Your task to perform on an android device: Do I have any events this weekend? Image 0: 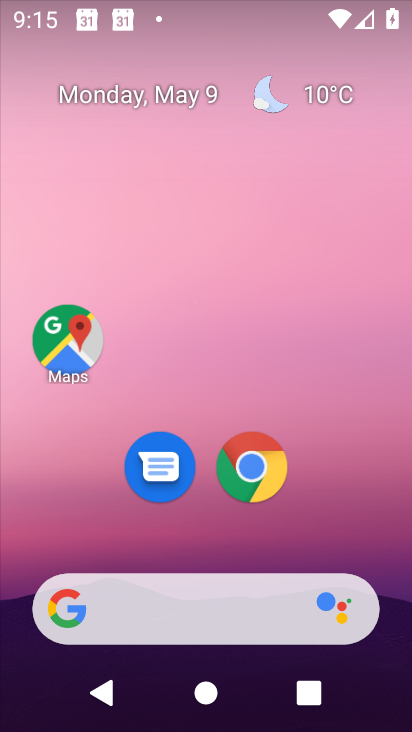
Step 0: press home button
Your task to perform on an android device: Do I have any events this weekend? Image 1: 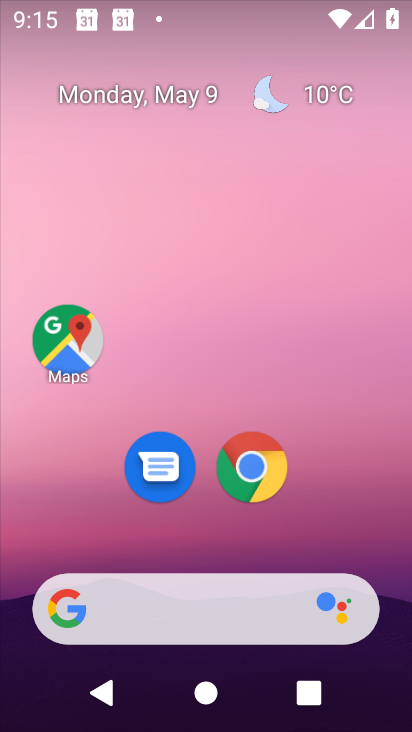
Step 1: drag from (385, 499) to (371, 13)
Your task to perform on an android device: Do I have any events this weekend? Image 2: 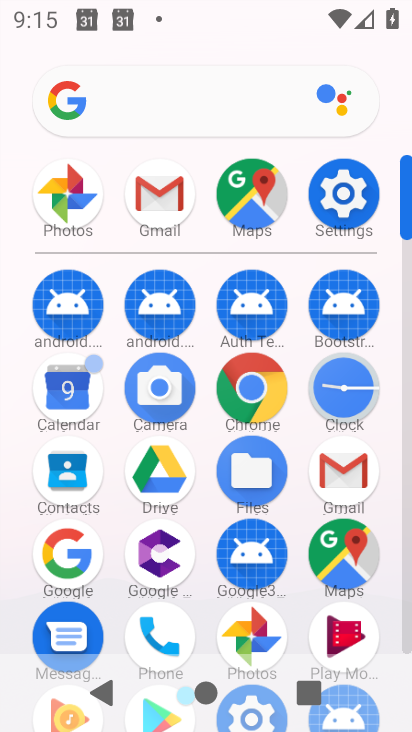
Step 2: click (69, 381)
Your task to perform on an android device: Do I have any events this weekend? Image 3: 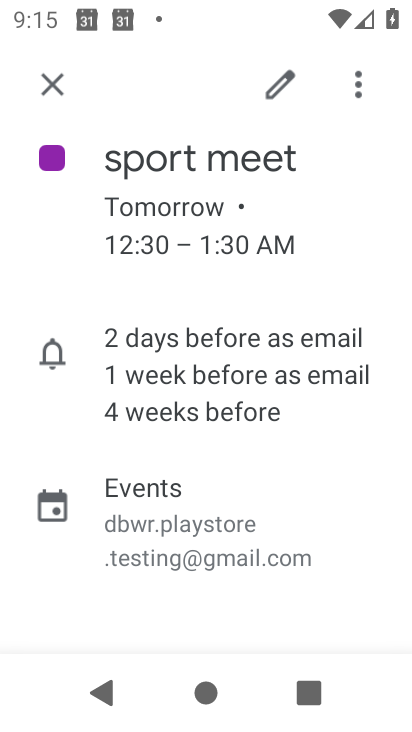
Step 3: click (49, 90)
Your task to perform on an android device: Do I have any events this weekend? Image 4: 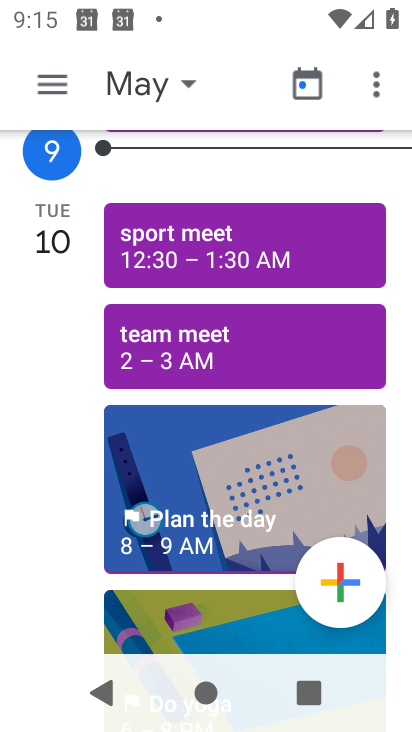
Step 4: drag from (144, 496) to (122, 62)
Your task to perform on an android device: Do I have any events this weekend? Image 5: 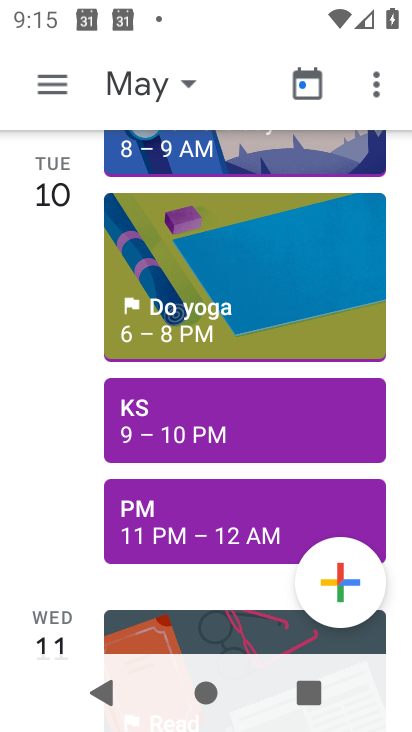
Step 5: drag from (152, 528) to (158, 41)
Your task to perform on an android device: Do I have any events this weekend? Image 6: 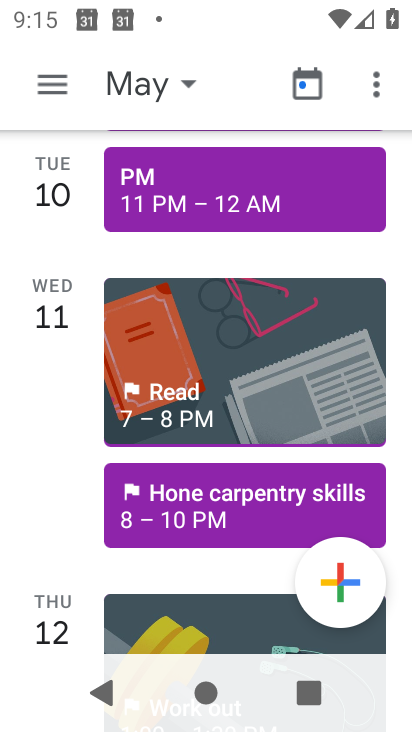
Step 6: drag from (183, 355) to (169, 9)
Your task to perform on an android device: Do I have any events this weekend? Image 7: 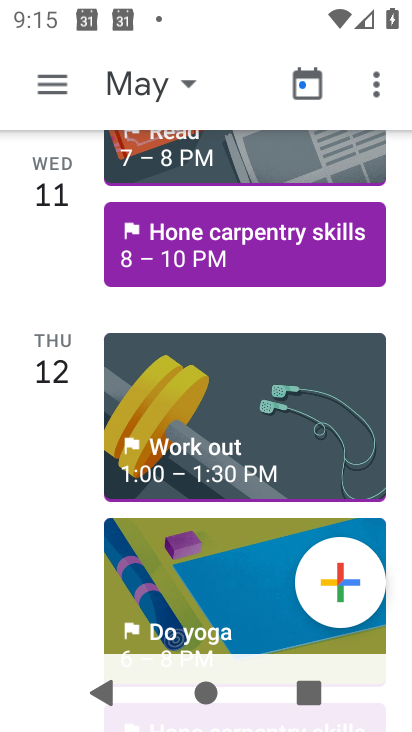
Step 7: drag from (135, 431) to (111, 12)
Your task to perform on an android device: Do I have any events this weekend? Image 8: 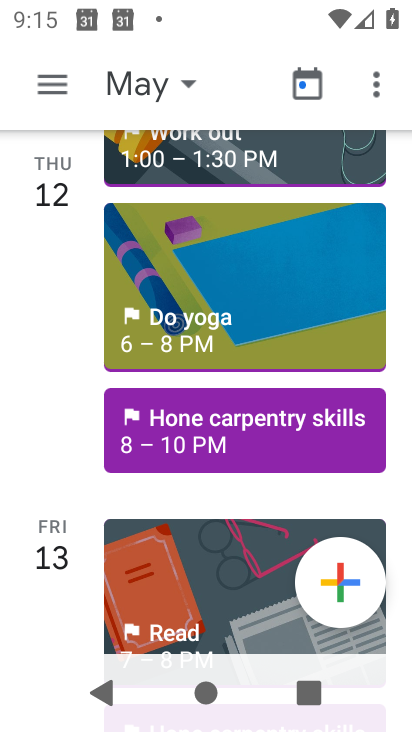
Step 8: drag from (138, 502) to (136, 58)
Your task to perform on an android device: Do I have any events this weekend? Image 9: 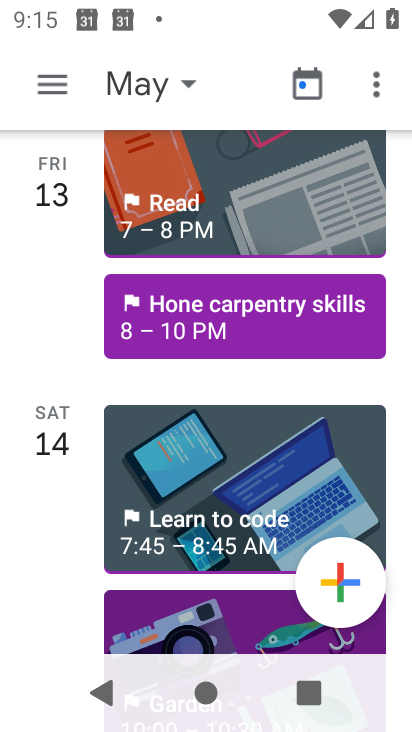
Step 9: drag from (190, 471) to (190, 133)
Your task to perform on an android device: Do I have any events this weekend? Image 10: 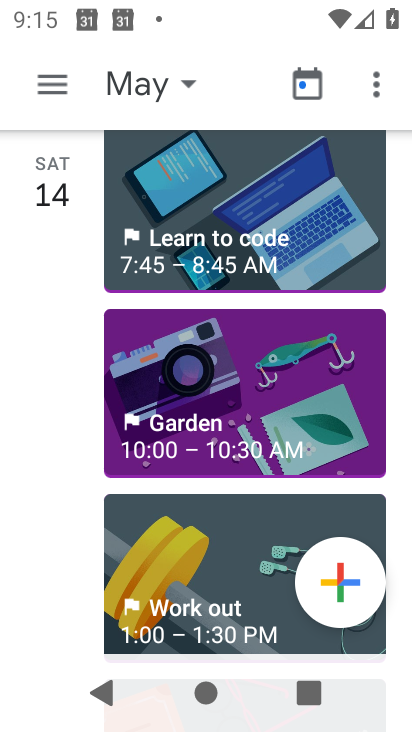
Step 10: click (187, 411)
Your task to perform on an android device: Do I have any events this weekend? Image 11: 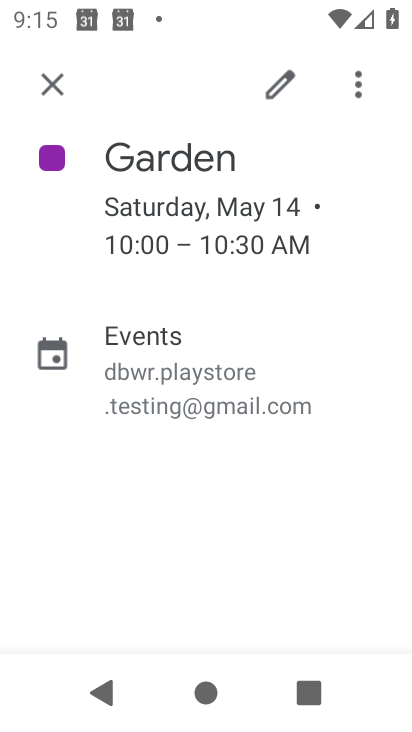
Step 11: task complete